Your task to perform on an android device: Go to eBay Image 0: 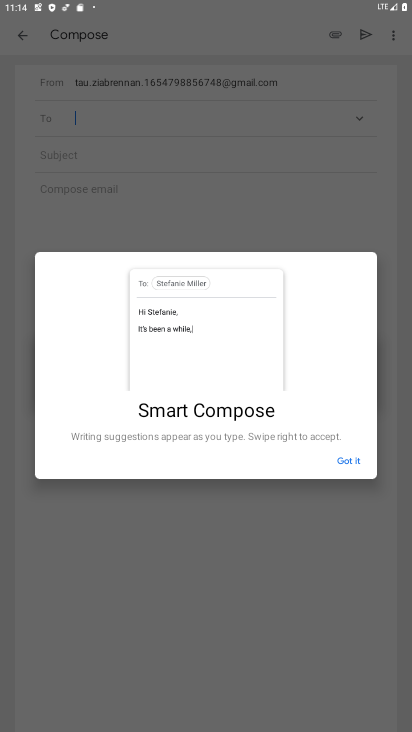
Step 0: press home button
Your task to perform on an android device: Go to eBay Image 1: 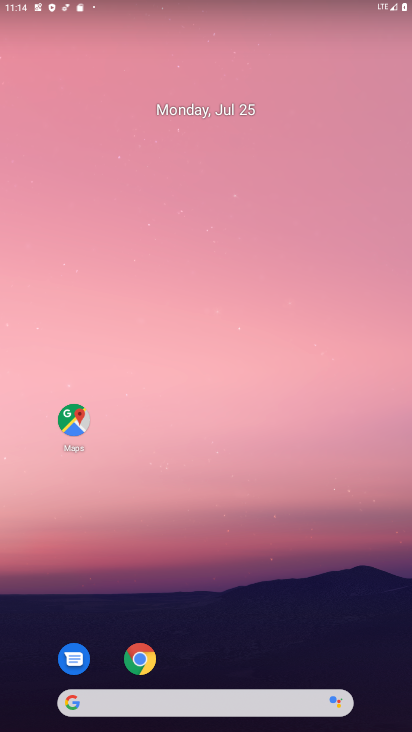
Step 1: drag from (285, 639) to (270, 231)
Your task to perform on an android device: Go to eBay Image 2: 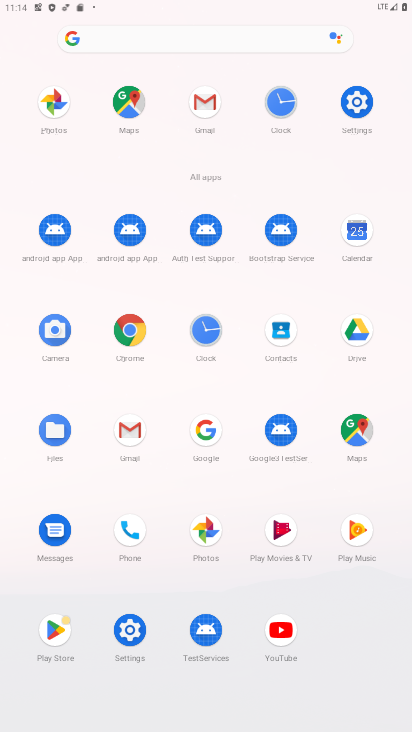
Step 2: click (135, 343)
Your task to perform on an android device: Go to eBay Image 3: 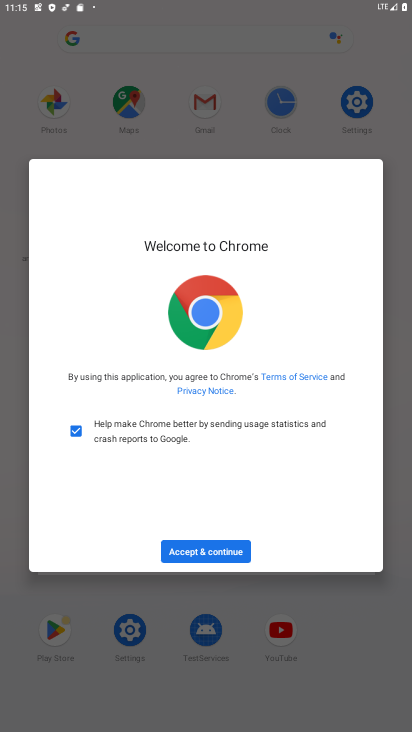
Step 3: click (210, 549)
Your task to perform on an android device: Go to eBay Image 4: 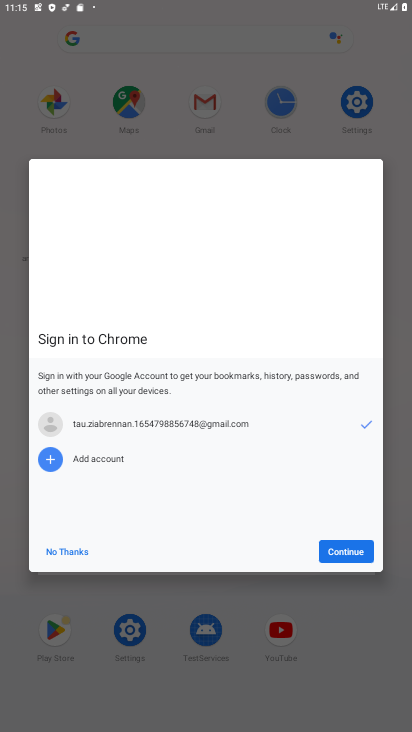
Step 4: click (331, 557)
Your task to perform on an android device: Go to eBay Image 5: 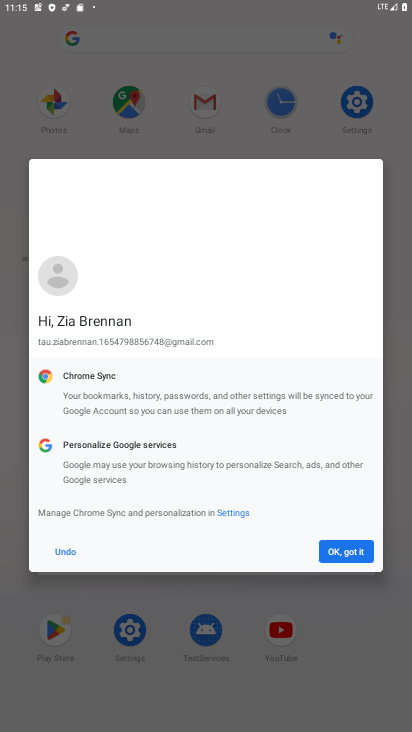
Step 5: click (344, 553)
Your task to perform on an android device: Go to eBay Image 6: 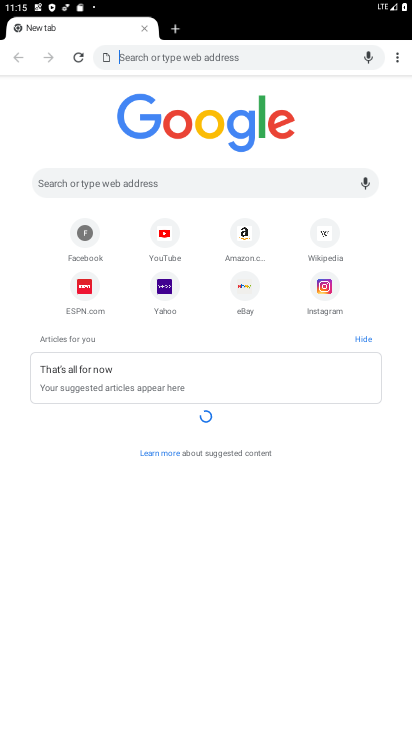
Step 6: click (246, 292)
Your task to perform on an android device: Go to eBay Image 7: 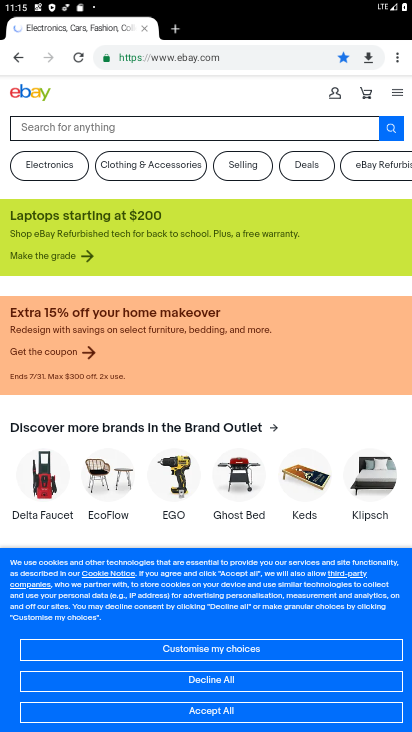
Step 7: task complete